Your task to perform on an android device: Open the web browser Image 0: 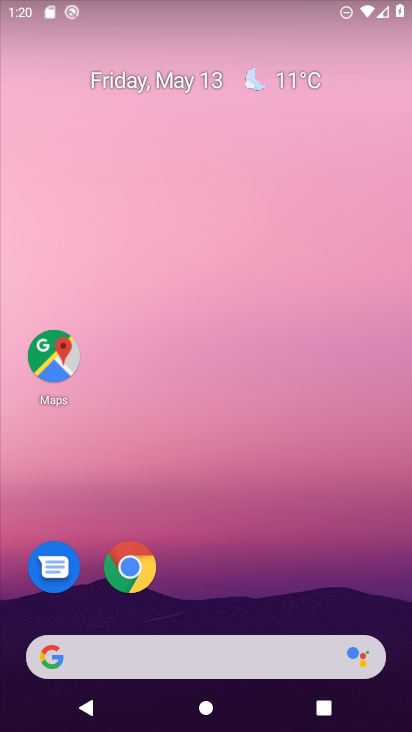
Step 0: press home button
Your task to perform on an android device: Open the web browser Image 1: 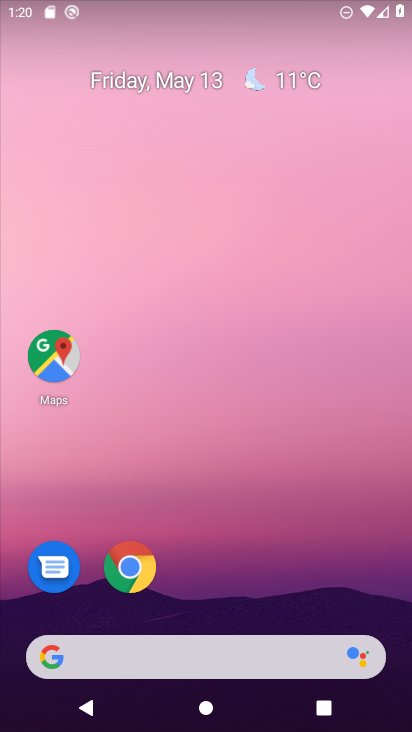
Step 1: click (131, 560)
Your task to perform on an android device: Open the web browser Image 2: 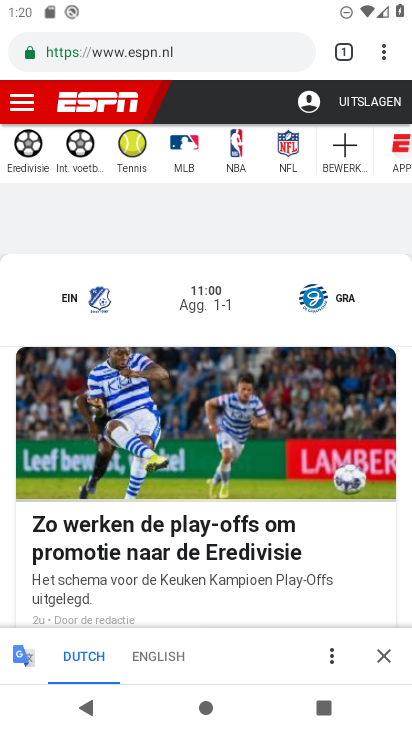
Step 2: click (384, 657)
Your task to perform on an android device: Open the web browser Image 3: 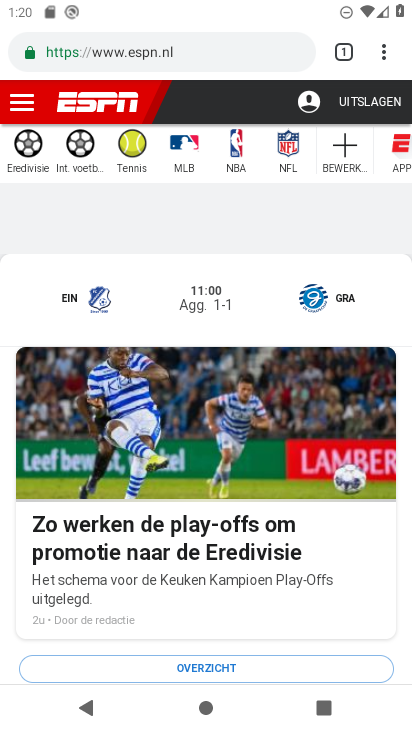
Step 3: task complete